Your task to perform on an android device: open chrome and create a bookmark for the current page Image 0: 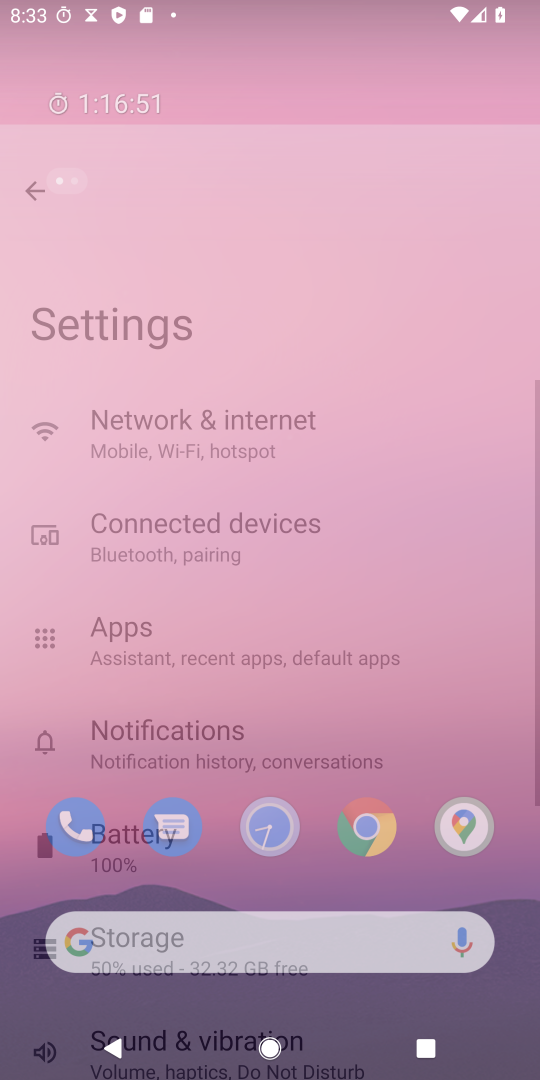
Step 0: press home button
Your task to perform on an android device: open chrome and create a bookmark for the current page Image 1: 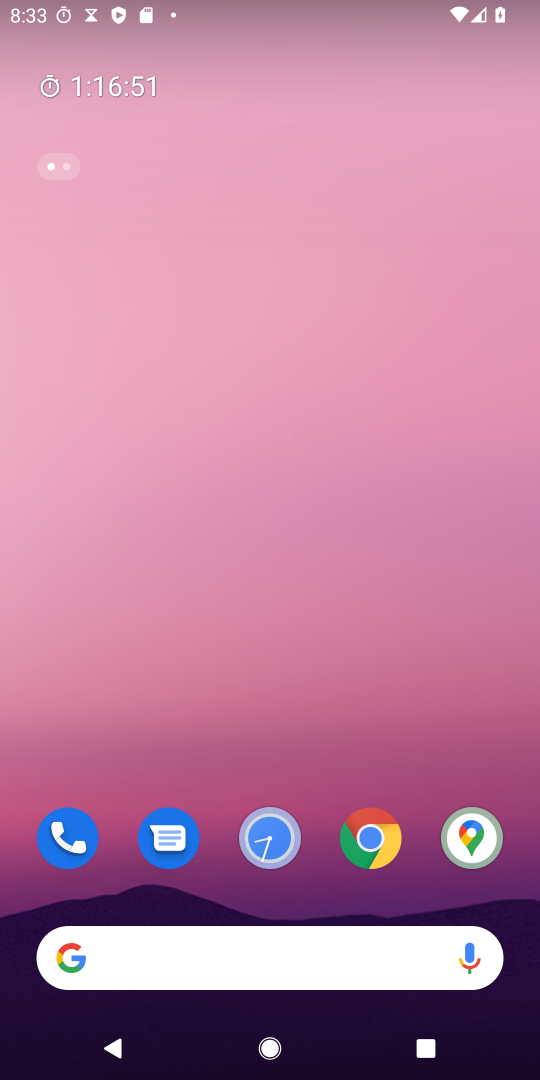
Step 1: press home button
Your task to perform on an android device: open chrome and create a bookmark for the current page Image 2: 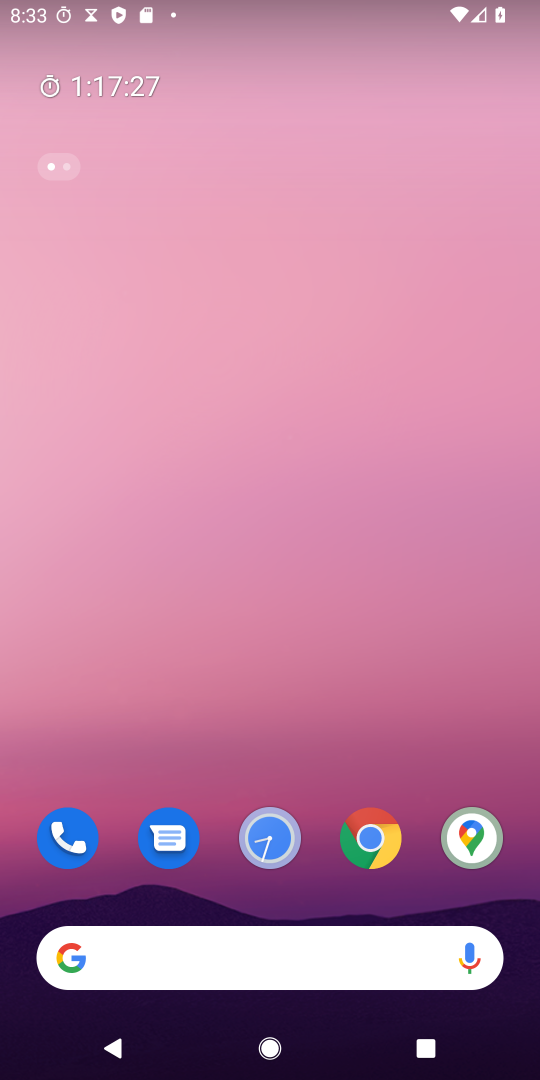
Step 2: drag from (289, 903) to (165, 277)
Your task to perform on an android device: open chrome and create a bookmark for the current page Image 3: 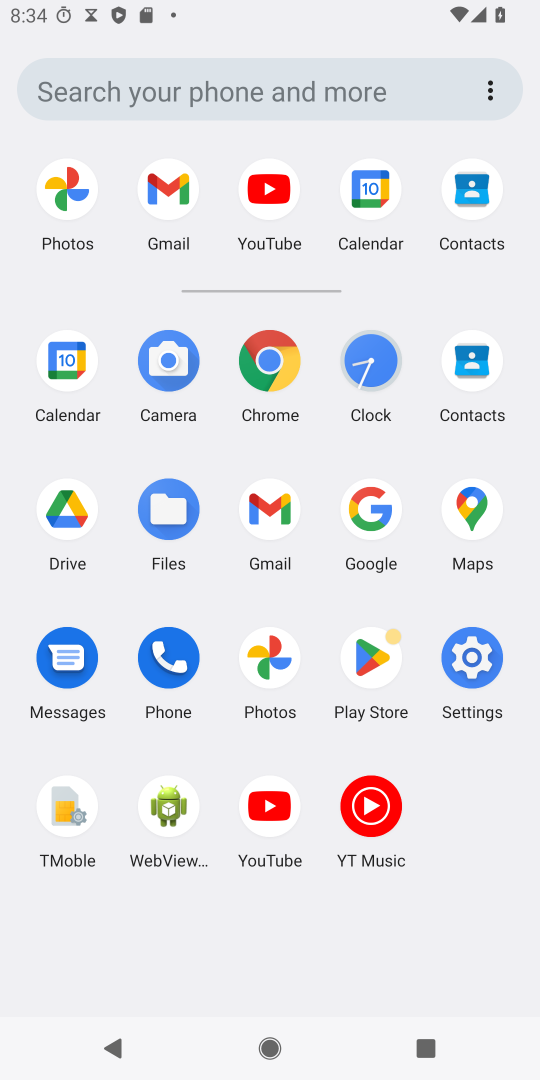
Step 3: click (264, 392)
Your task to perform on an android device: open chrome and create a bookmark for the current page Image 4: 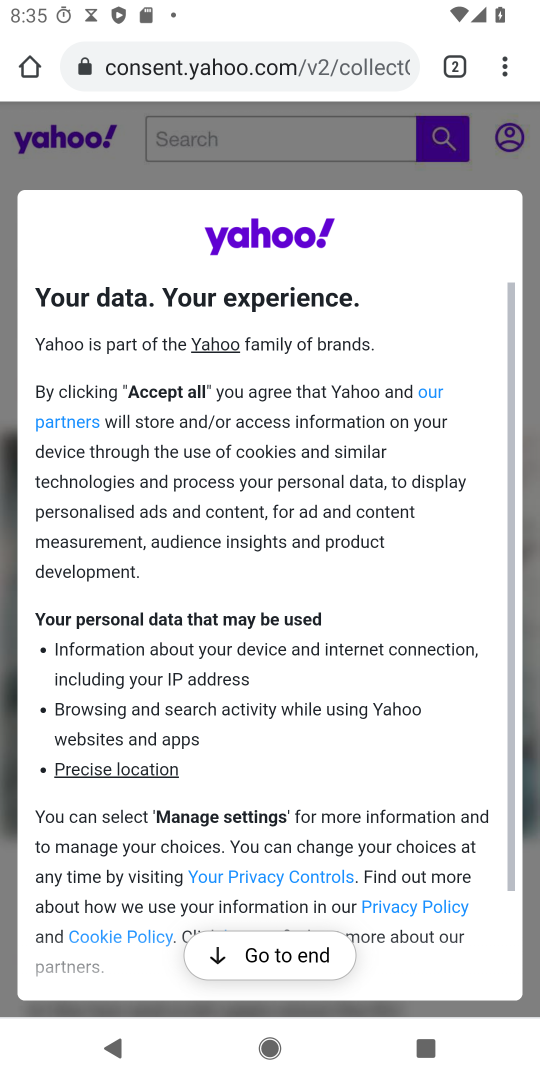
Step 4: drag from (503, 64) to (329, 370)
Your task to perform on an android device: open chrome and create a bookmark for the current page Image 5: 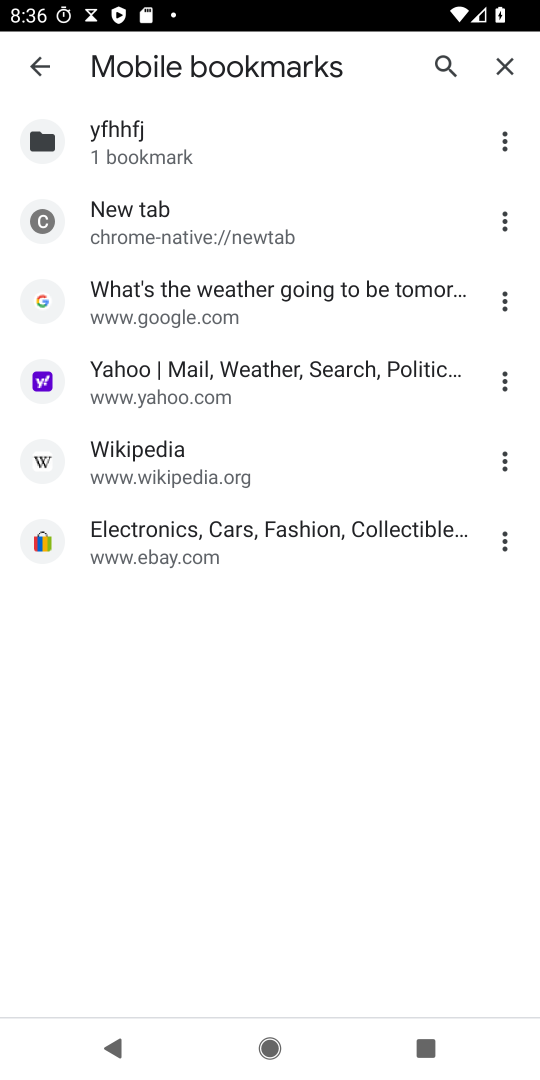
Step 5: click (16, 68)
Your task to perform on an android device: open chrome and create a bookmark for the current page Image 6: 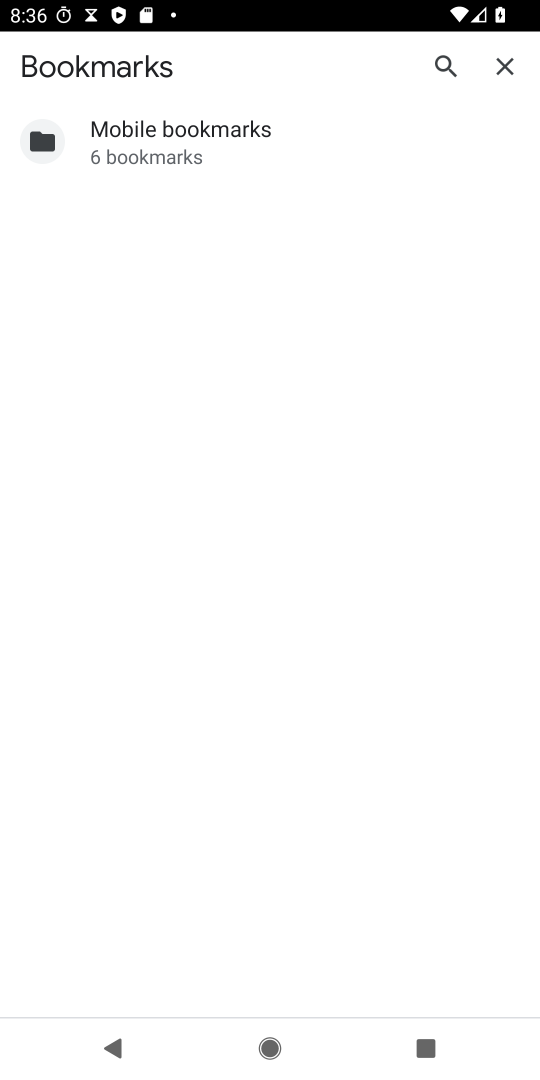
Step 6: click (515, 69)
Your task to perform on an android device: open chrome and create a bookmark for the current page Image 7: 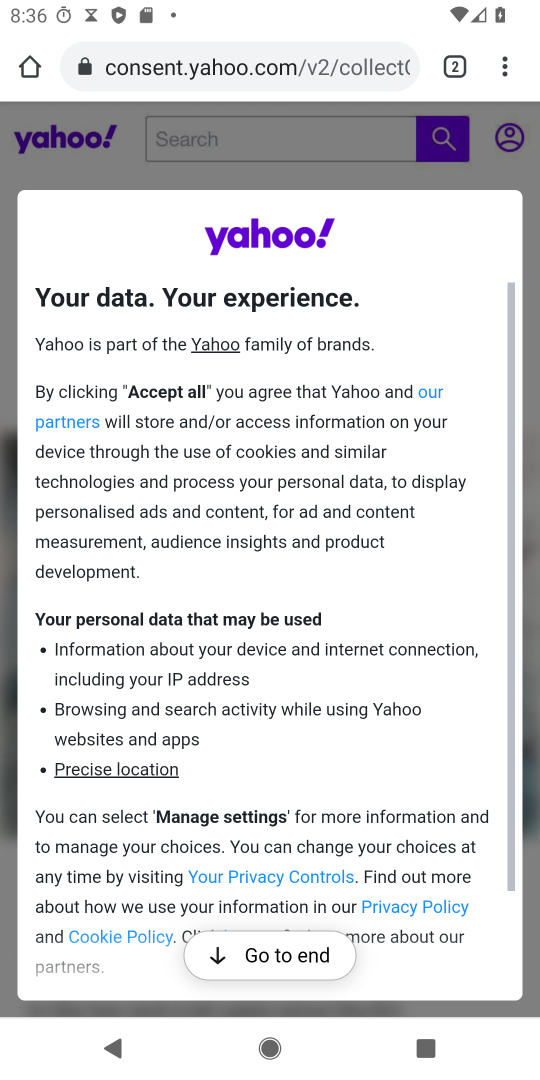
Step 7: task complete